Your task to perform on an android device: Turn on the flashlight Image 0: 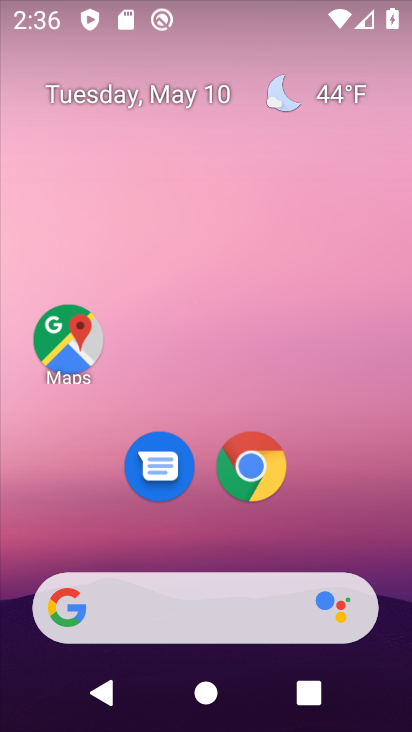
Step 0: drag from (329, 525) to (257, 87)
Your task to perform on an android device: Turn on the flashlight Image 1: 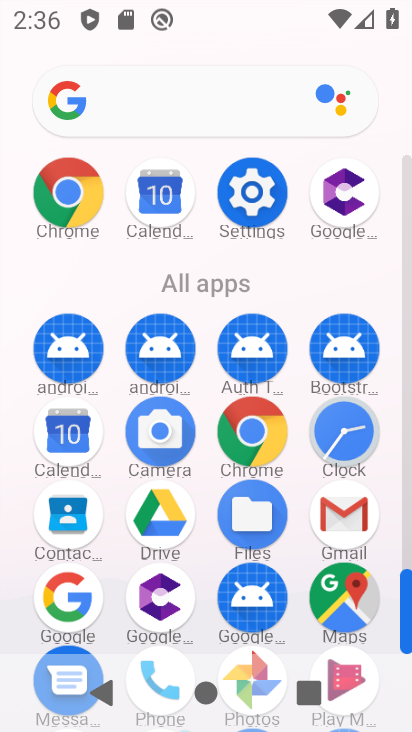
Step 1: click (254, 191)
Your task to perform on an android device: Turn on the flashlight Image 2: 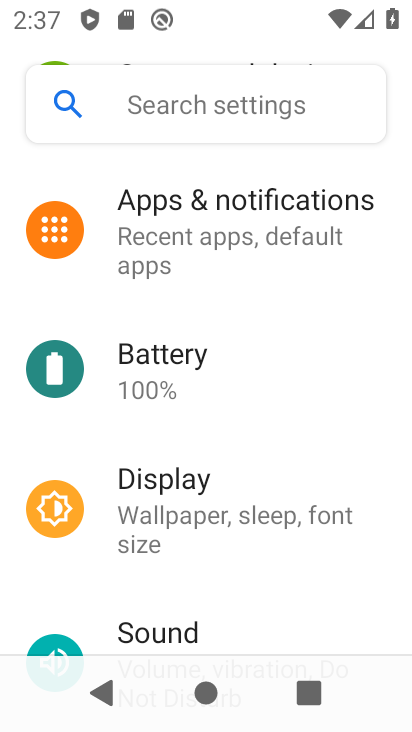
Step 2: drag from (206, 444) to (227, 316)
Your task to perform on an android device: Turn on the flashlight Image 3: 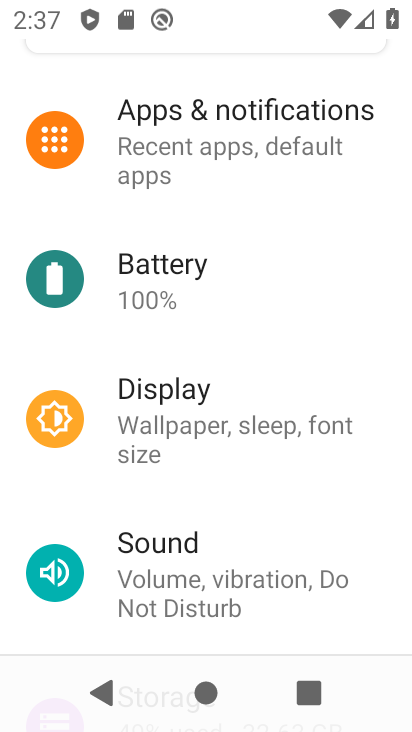
Step 3: drag from (226, 507) to (287, 311)
Your task to perform on an android device: Turn on the flashlight Image 4: 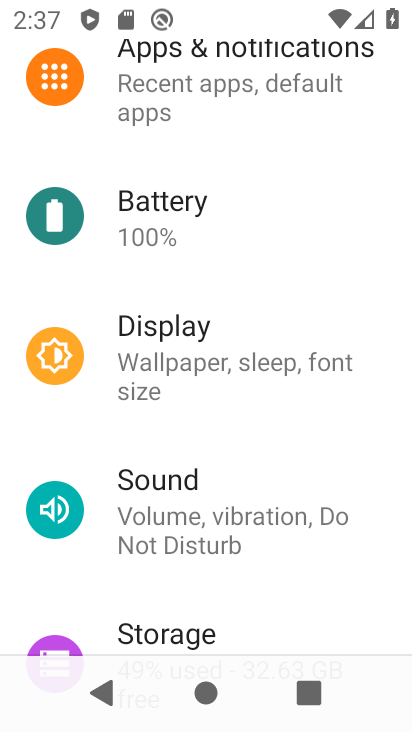
Step 4: drag from (194, 575) to (215, 381)
Your task to perform on an android device: Turn on the flashlight Image 5: 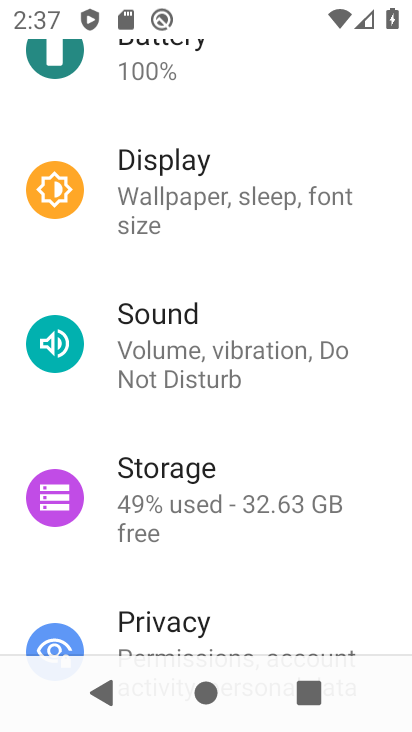
Step 5: drag from (182, 537) to (202, 378)
Your task to perform on an android device: Turn on the flashlight Image 6: 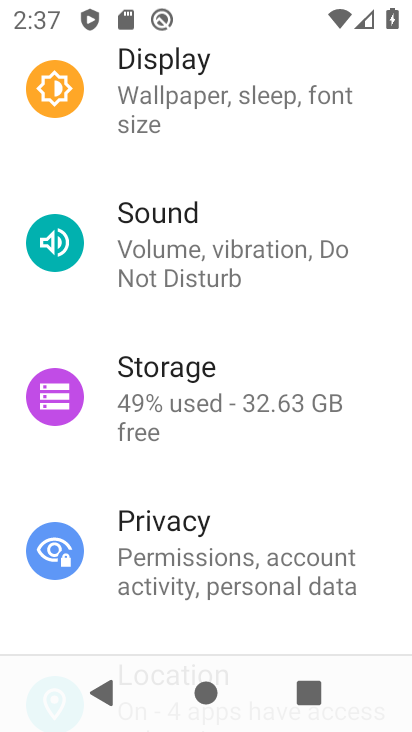
Step 6: click (209, 249)
Your task to perform on an android device: Turn on the flashlight Image 7: 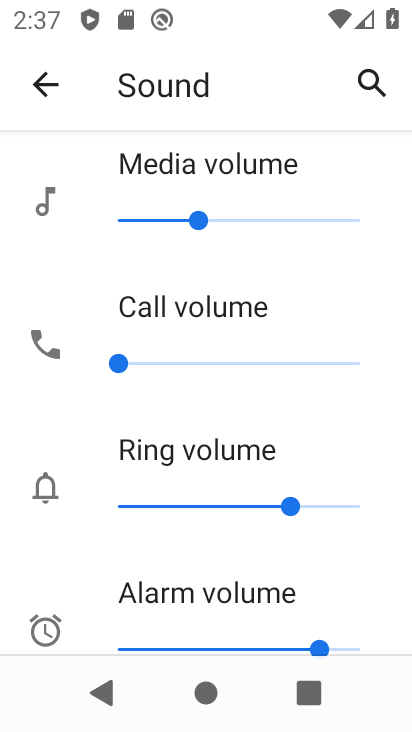
Step 7: drag from (201, 527) to (237, 302)
Your task to perform on an android device: Turn on the flashlight Image 8: 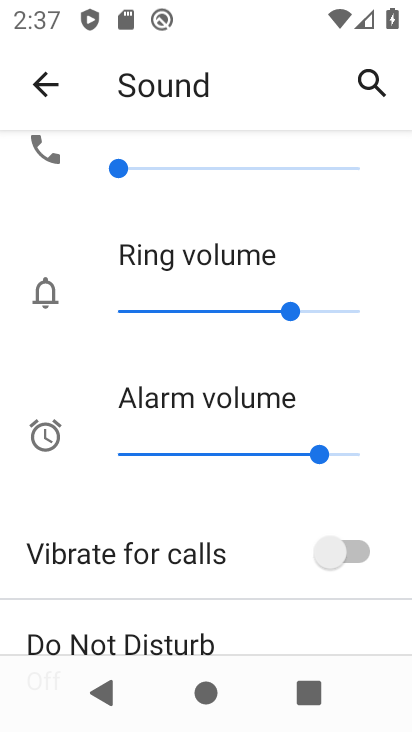
Step 8: drag from (204, 500) to (260, 285)
Your task to perform on an android device: Turn on the flashlight Image 9: 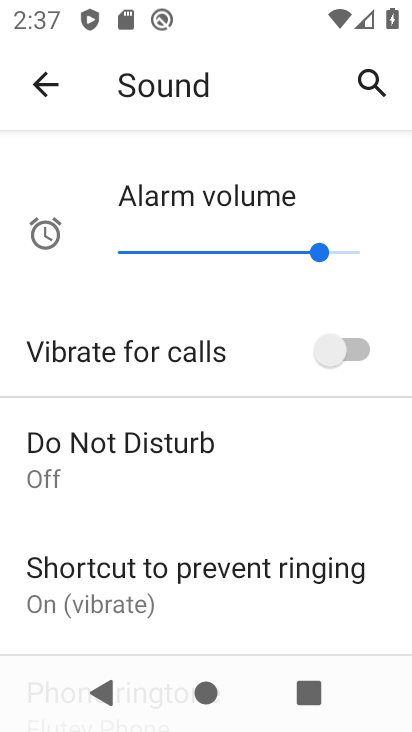
Step 9: drag from (182, 466) to (233, 243)
Your task to perform on an android device: Turn on the flashlight Image 10: 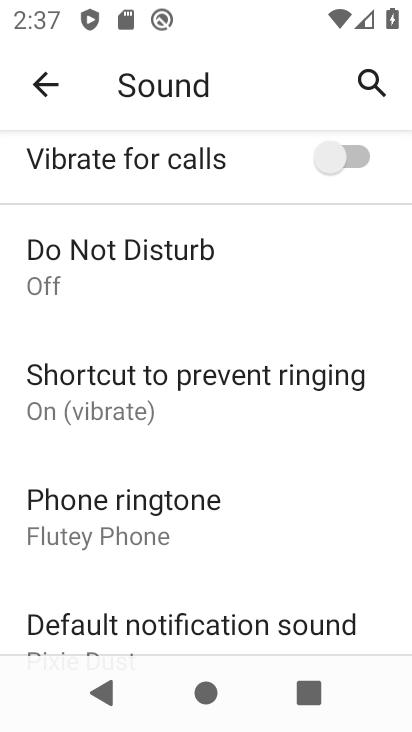
Step 10: drag from (152, 558) to (163, 346)
Your task to perform on an android device: Turn on the flashlight Image 11: 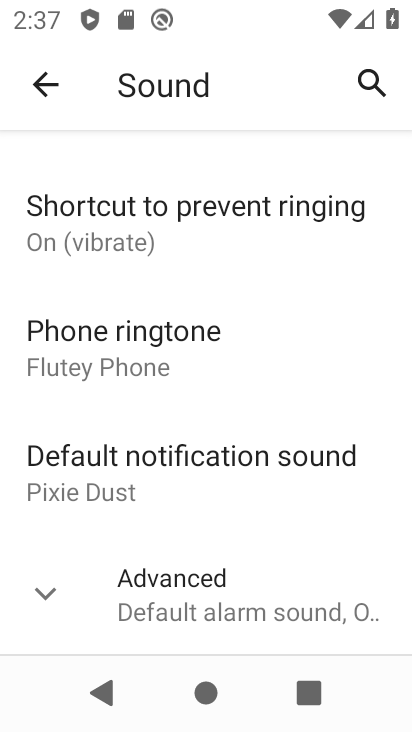
Step 11: click (146, 589)
Your task to perform on an android device: Turn on the flashlight Image 12: 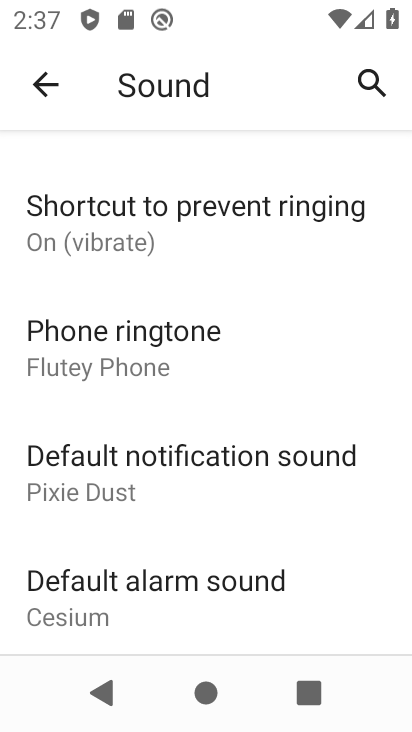
Step 12: drag from (153, 615) to (181, 476)
Your task to perform on an android device: Turn on the flashlight Image 13: 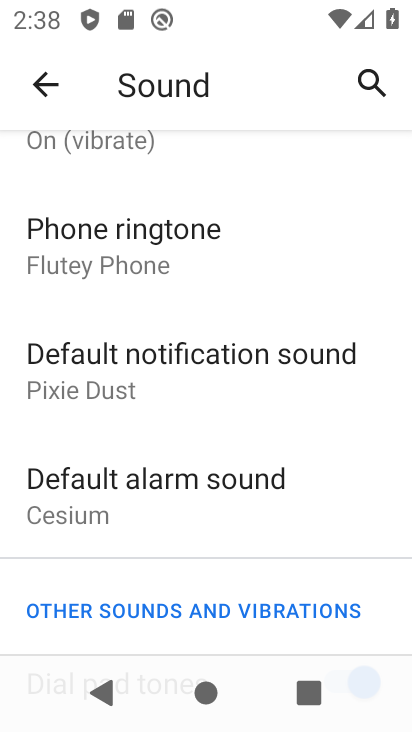
Step 13: press back button
Your task to perform on an android device: Turn on the flashlight Image 14: 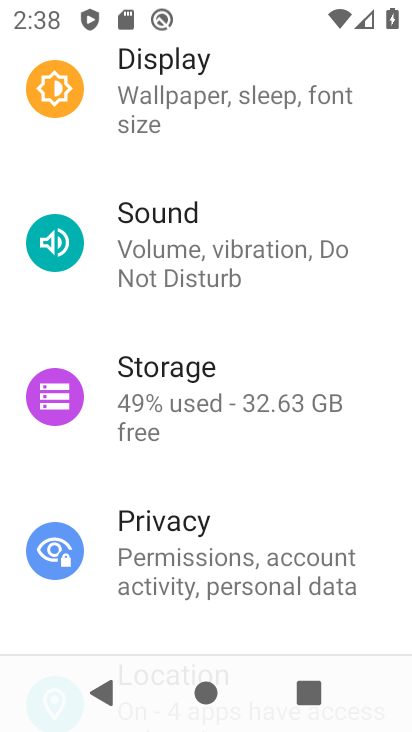
Step 14: drag from (271, 488) to (277, 300)
Your task to perform on an android device: Turn on the flashlight Image 15: 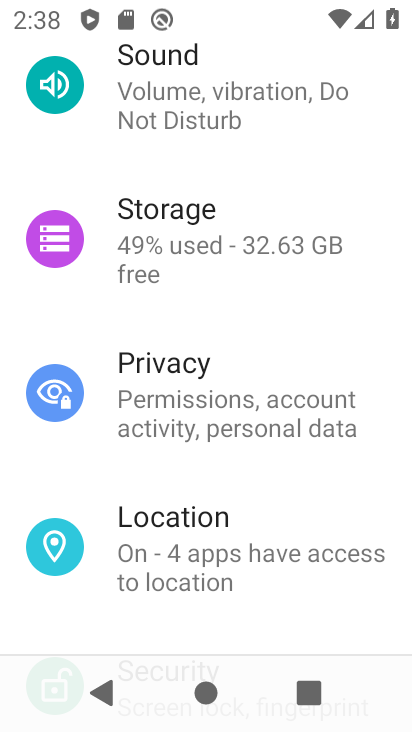
Step 15: drag from (220, 489) to (292, 338)
Your task to perform on an android device: Turn on the flashlight Image 16: 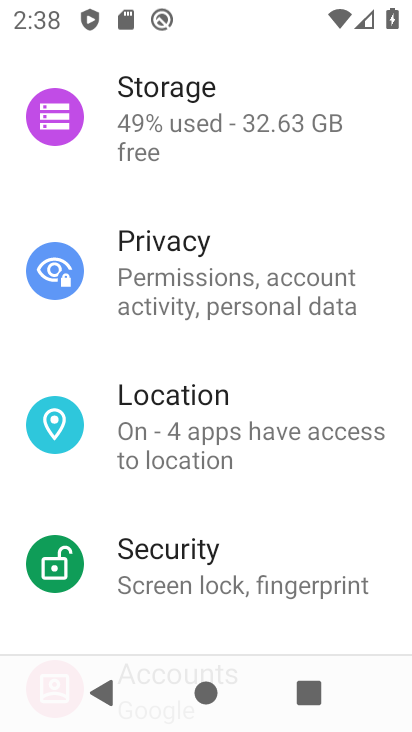
Step 16: click (264, 277)
Your task to perform on an android device: Turn on the flashlight Image 17: 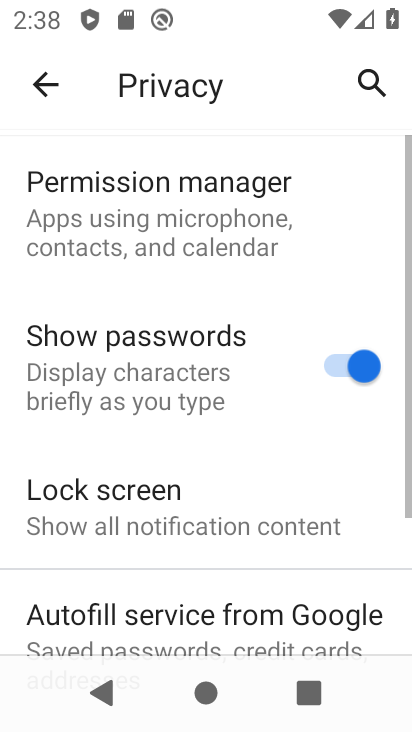
Step 17: drag from (189, 505) to (242, 317)
Your task to perform on an android device: Turn on the flashlight Image 18: 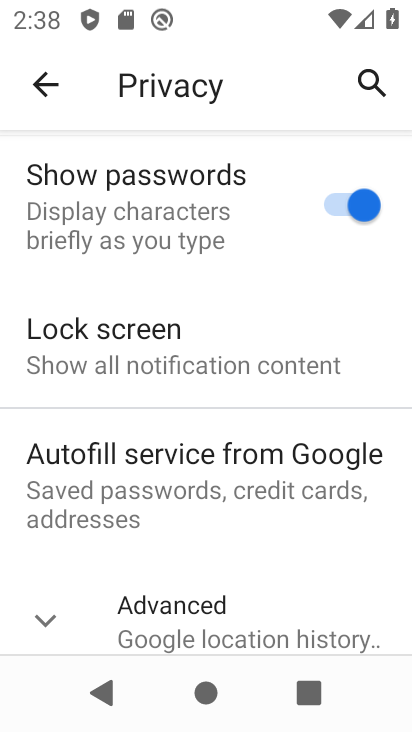
Step 18: drag from (173, 536) to (251, 301)
Your task to perform on an android device: Turn on the flashlight Image 19: 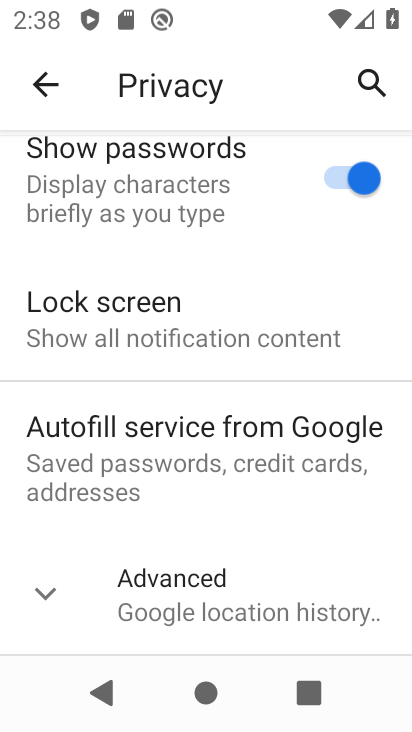
Step 19: click (160, 591)
Your task to perform on an android device: Turn on the flashlight Image 20: 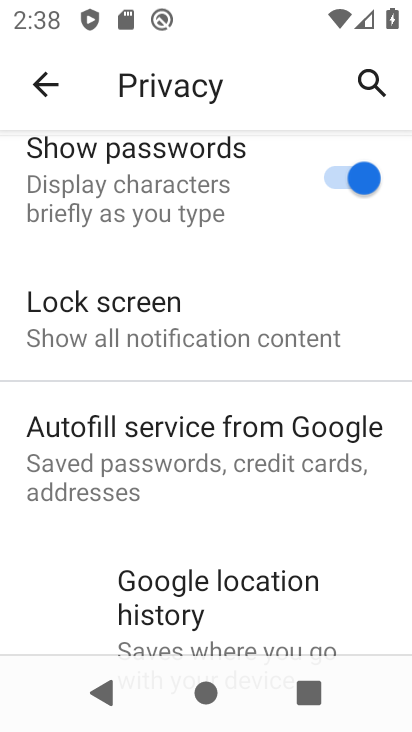
Step 20: task complete